Your task to perform on an android device: Is it going to rain today? Image 0: 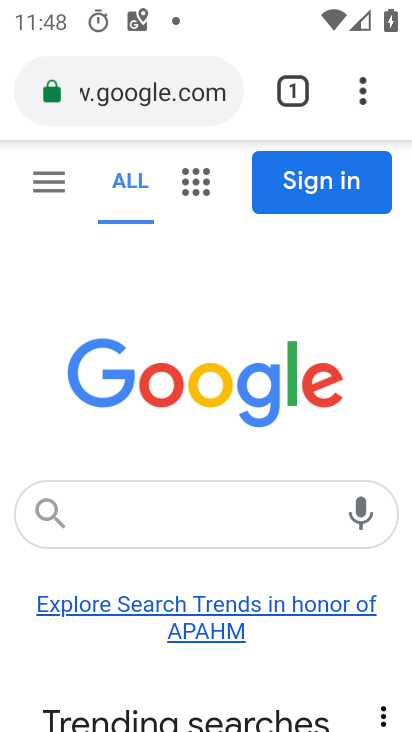
Step 0: press home button
Your task to perform on an android device: Is it going to rain today? Image 1: 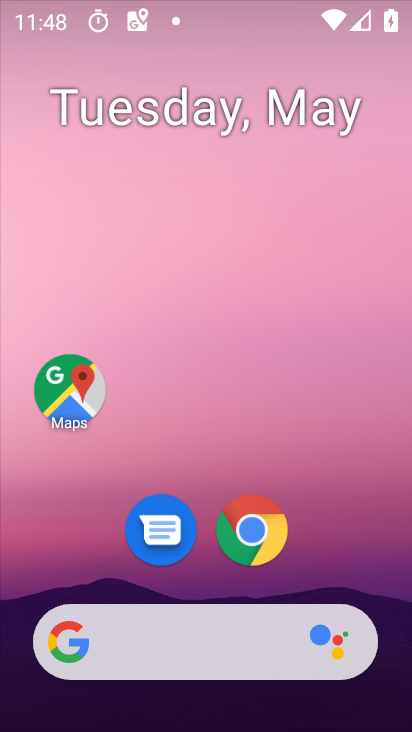
Step 1: drag from (178, 580) to (228, 160)
Your task to perform on an android device: Is it going to rain today? Image 2: 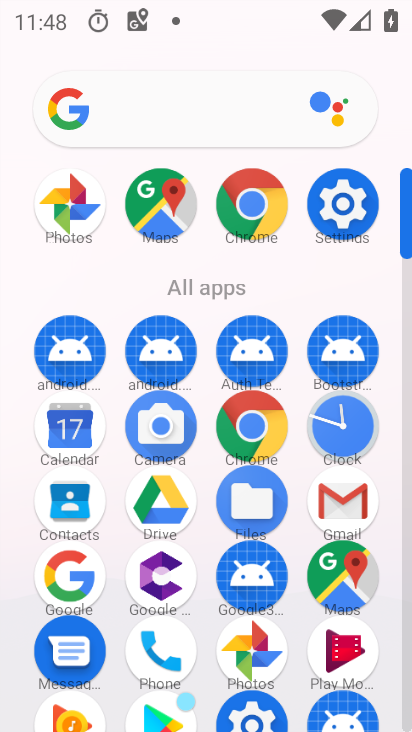
Step 2: press back button
Your task to perform on an android device: Is it going to rain today? Image 3: 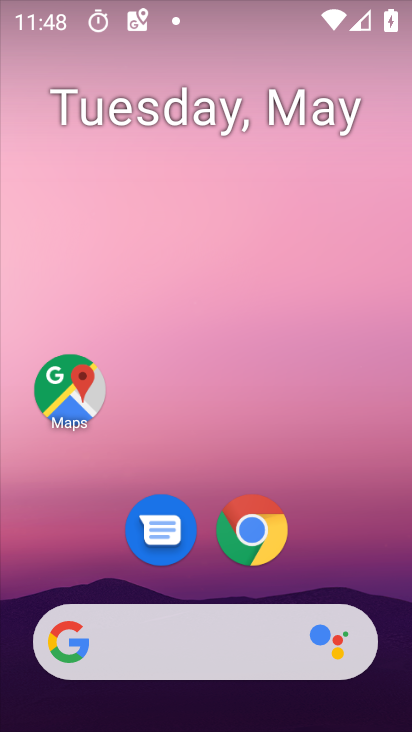
Step 3: drag from (5, 257) to (347, 269)
Your task to perform on an android device: Is it going to rain today? Image 4: 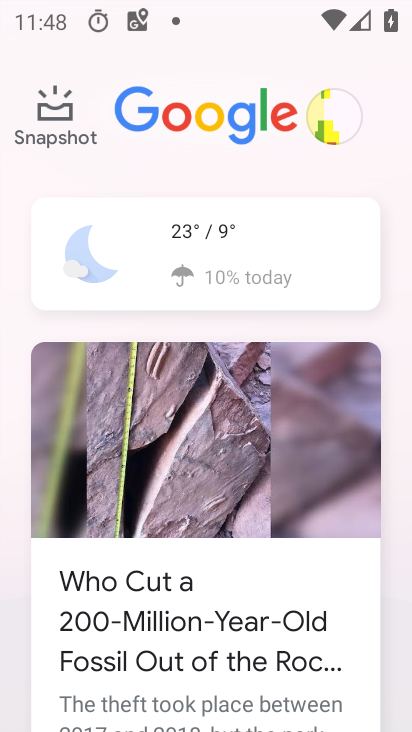
Step 4: click (210, 246)
Your task to perform on an android device: Is it going to rain today? Image 5: 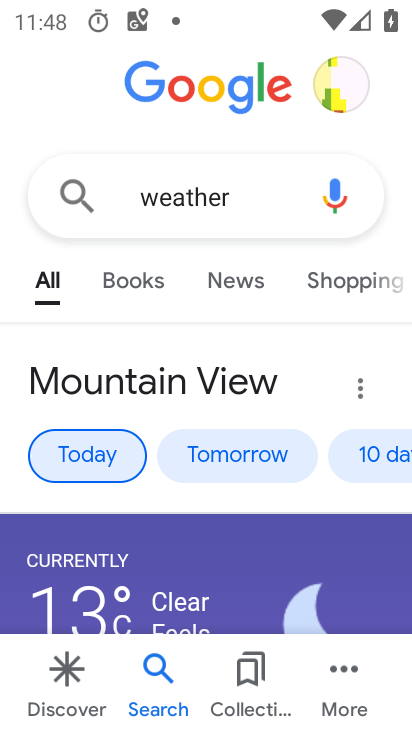
Step 5: task complete